Your task to perform on an android device: check google app version Image 0: 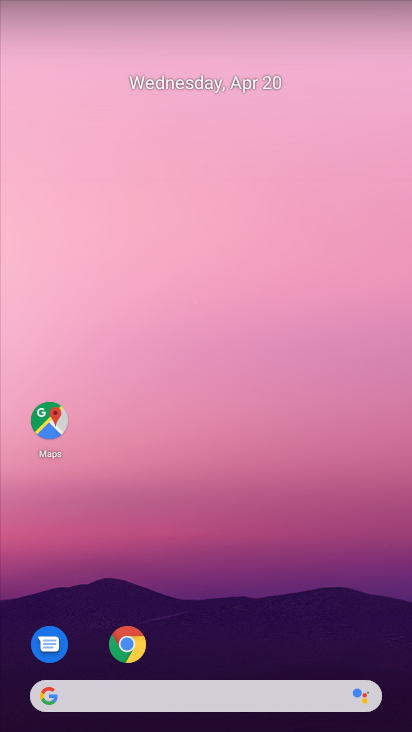
Step 0: click (123, 643)
Your task to perform on an android device: check google app version Image 1: 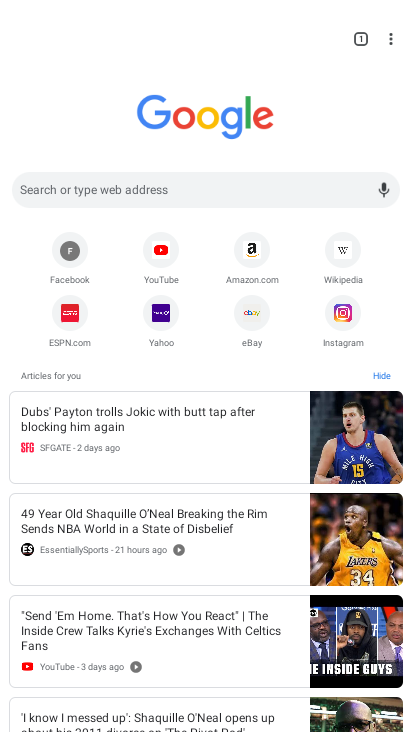
Step 1: click (389, 41)
Your task to perform on an android device: check google app version Image 2: 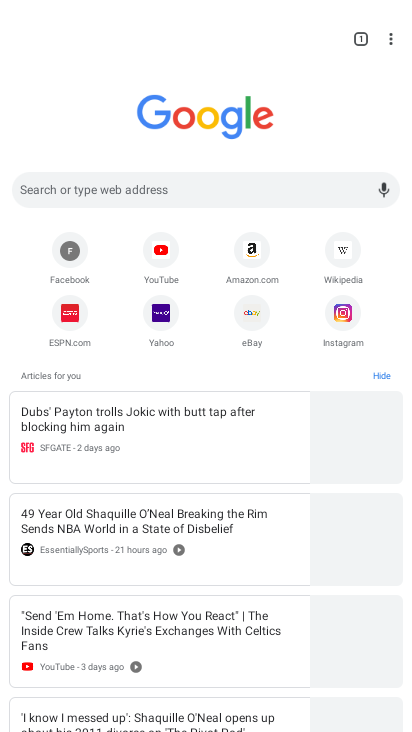
Step 2: click (389, 41)
Your task to perform on an android device: check google app version Image 3: 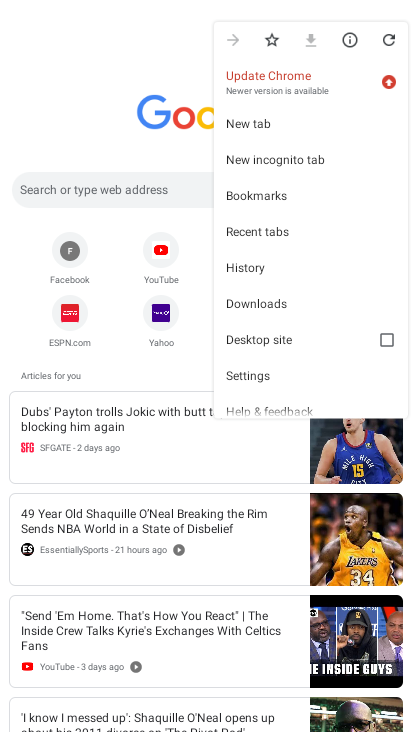
Step 3: drag from (318, 356) to (293, 168)
Your task to perform on an android device: check google app version Image 4: 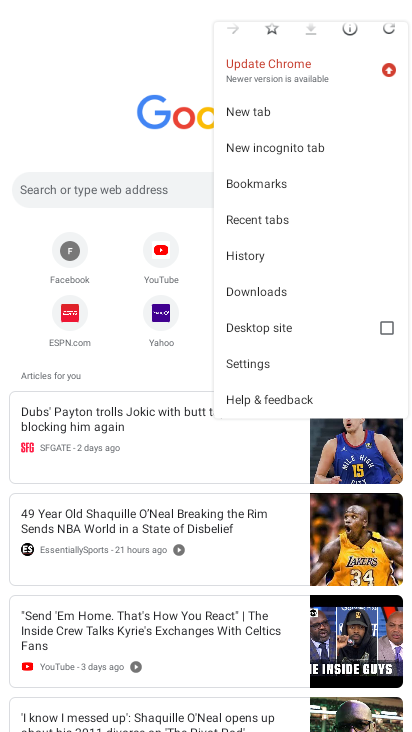
Step 4: click (254, 361)
Your task to perform on an android device: check google app version Image 5: 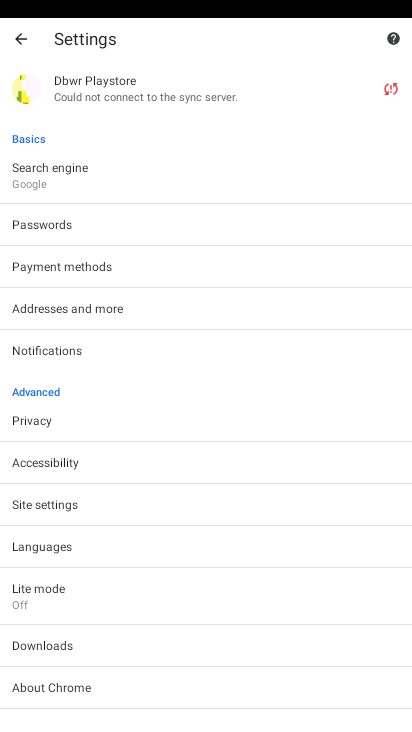
Step 5: click (77, 702)
Your task to perform on an android device: check google app version Image 6: 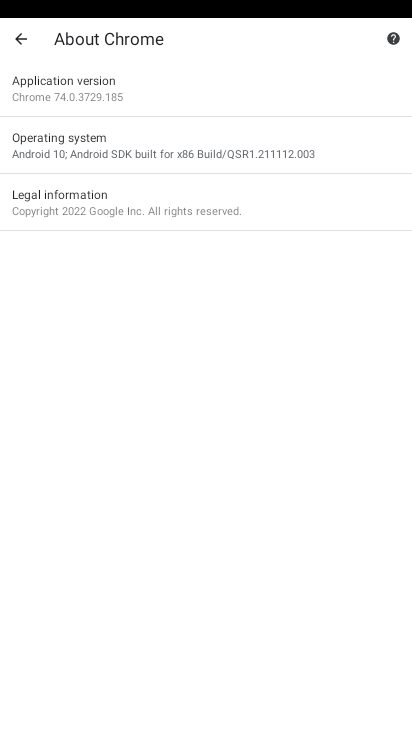
Step 6: click (59, 76)
Your task to perform on an android device: check google app version Image 7: 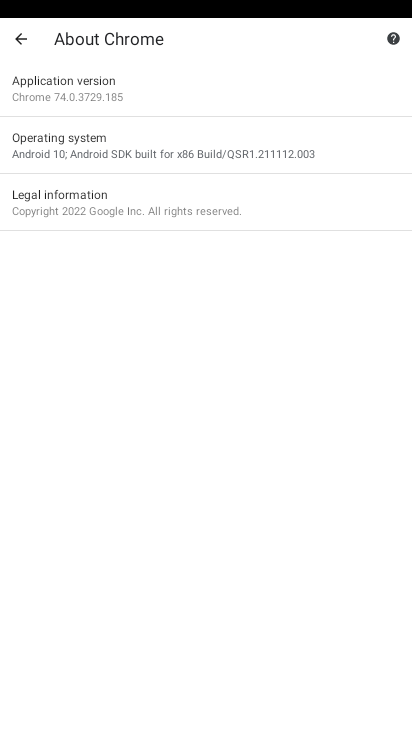
Step 7: task complete